Your task to perform on an android device: turn notification dots off Image 0: 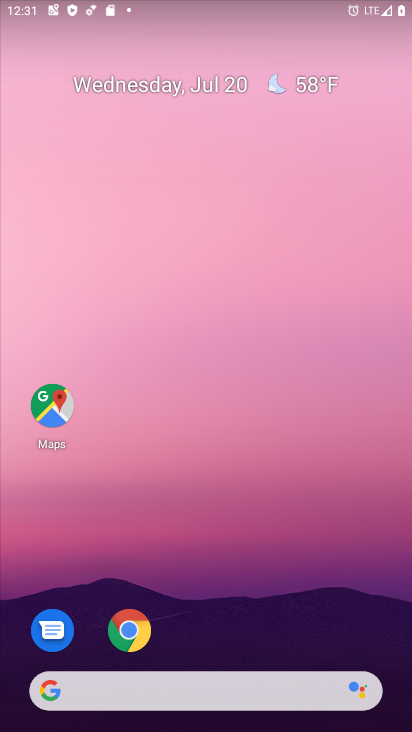
Step 0: drag from (259, 628) to (343, 40)
Your task to perform on an android device: turn notification dots off Image 1: 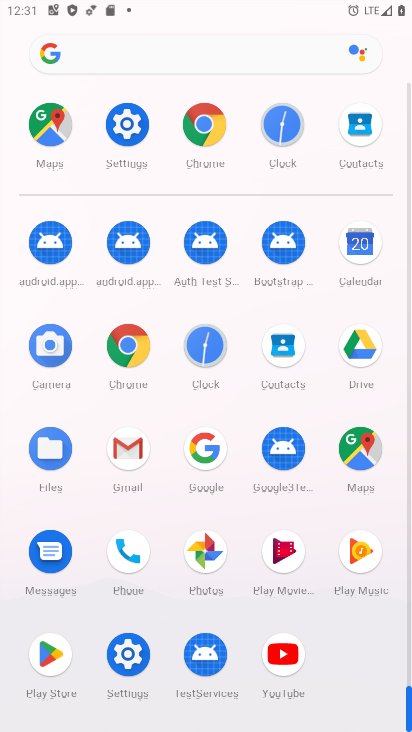
Step 1: click (132, 143)
Your task to perform on an android device: turn notification dots off Image 2: 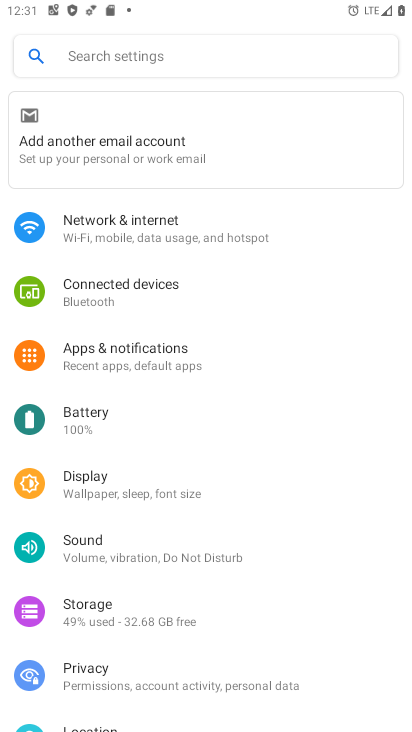
Step 2: click (159, 361)
Your task to perform on an android device: turn notification dots off Image 3: 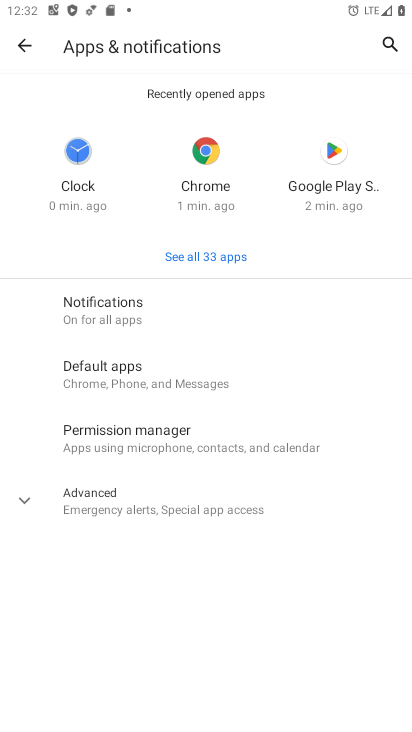
Step 3: click (142, 320)
Your task to perform on an android device: turn notification dots off Image 4: 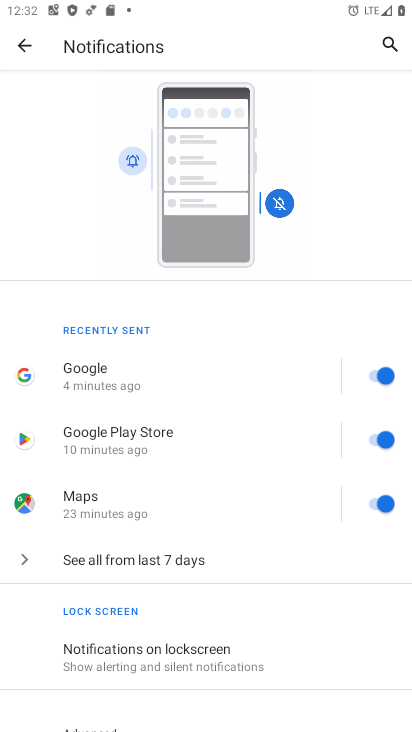
Step 4: drag from (193, 664) to (213, 288)
Your task to perform on an android device: turn notification dots off Image 5: 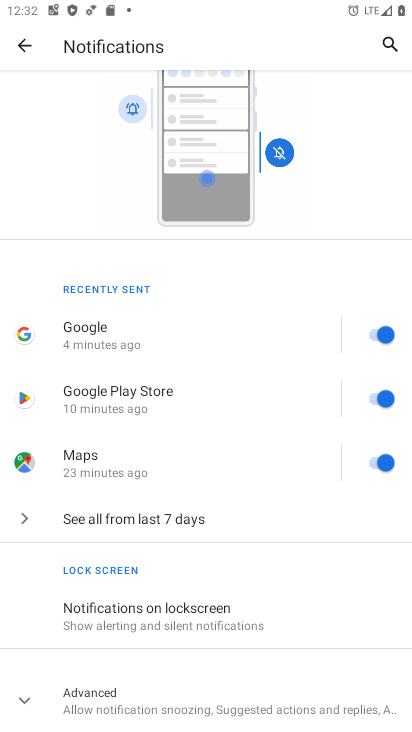
Step 5: click (219, 713)
Your task to perform on an android device: turn notification dots off Image 6: 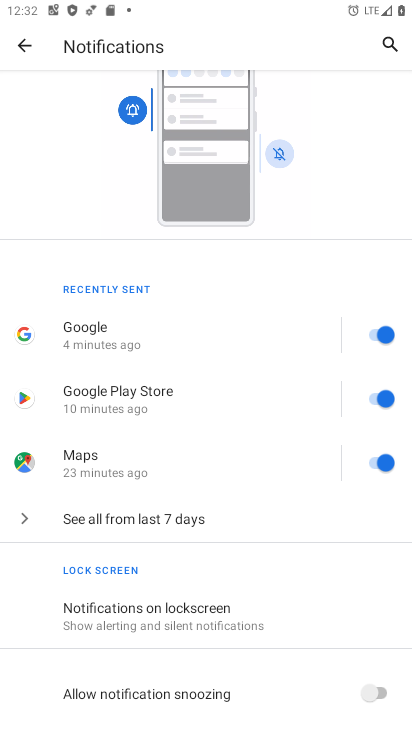
Step 6: task complete